Your task to perform on an android device: set the timer Image 0: 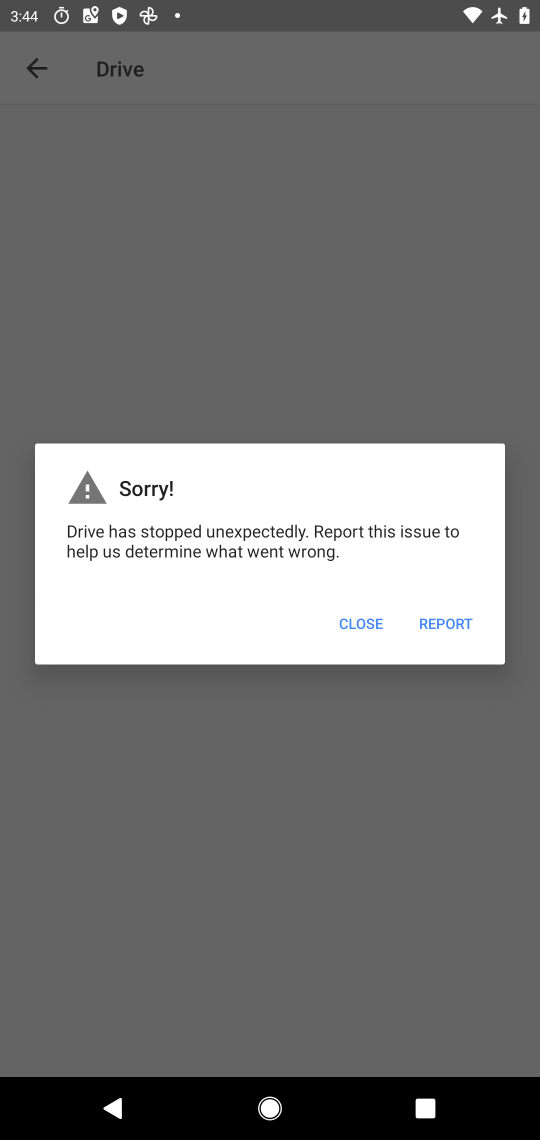
Step 0: press home button
Your task to perform on an android device: set the timer Image 1: 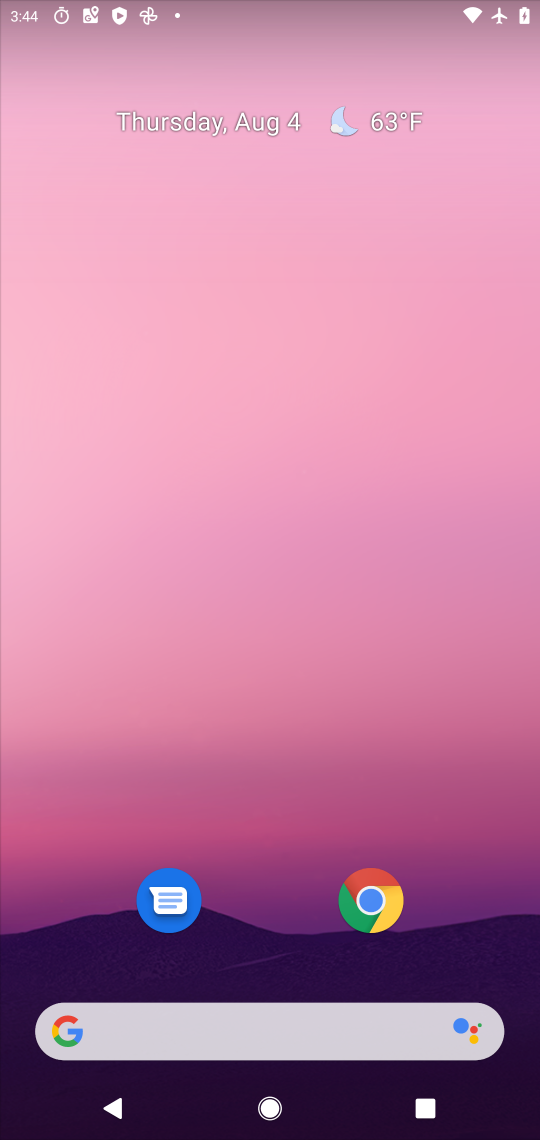
Step 1: drag from (465, 964) to (275, 70)
Your task to perform on an android device: set the timer Image 2: 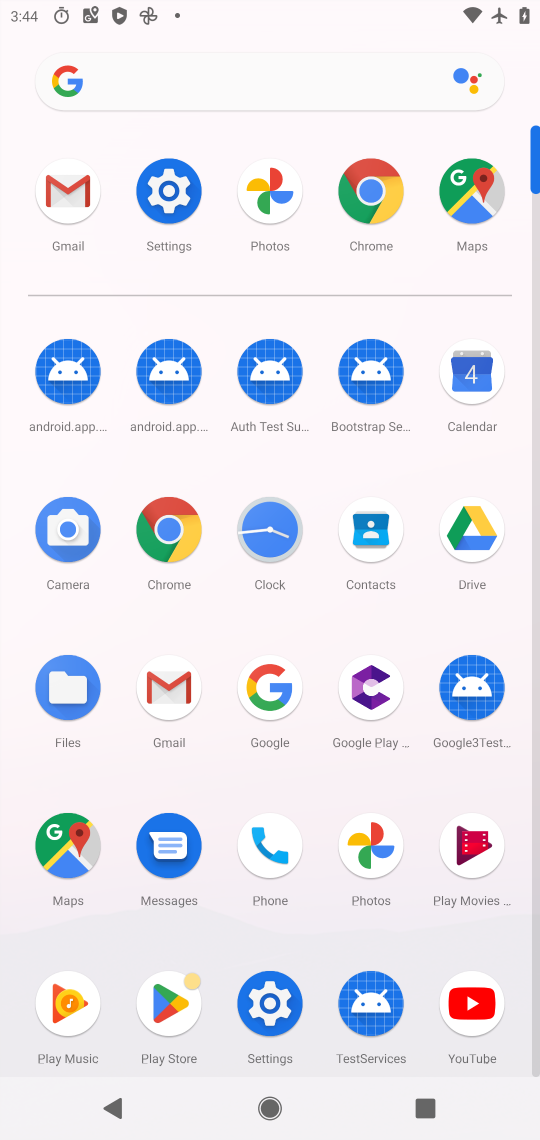
Step 2: click (266, 563)
Your task to perform on an android device: set the timer Image 3: 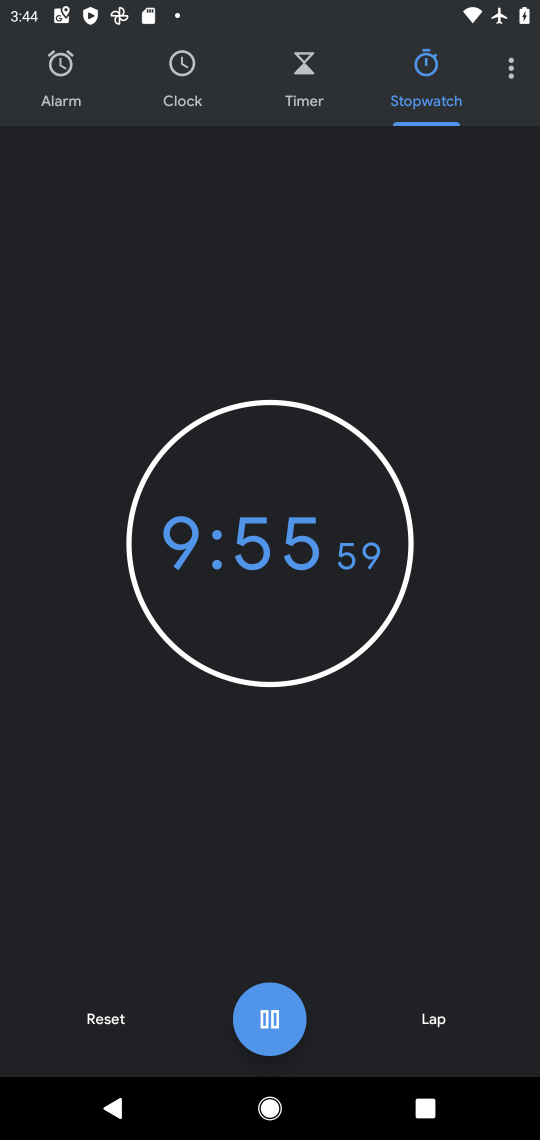
Step 3: click (312, 79)
Your task to perform on an android device: set the timer Image 4: 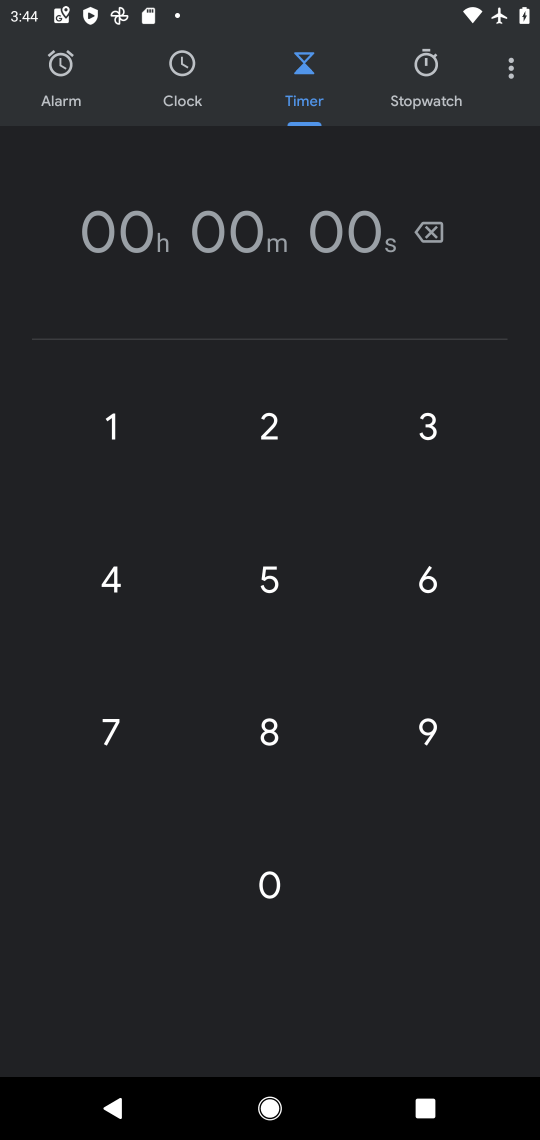
Step 4: type "90000"
Your task to perform on an android device: set the timer Image 5: 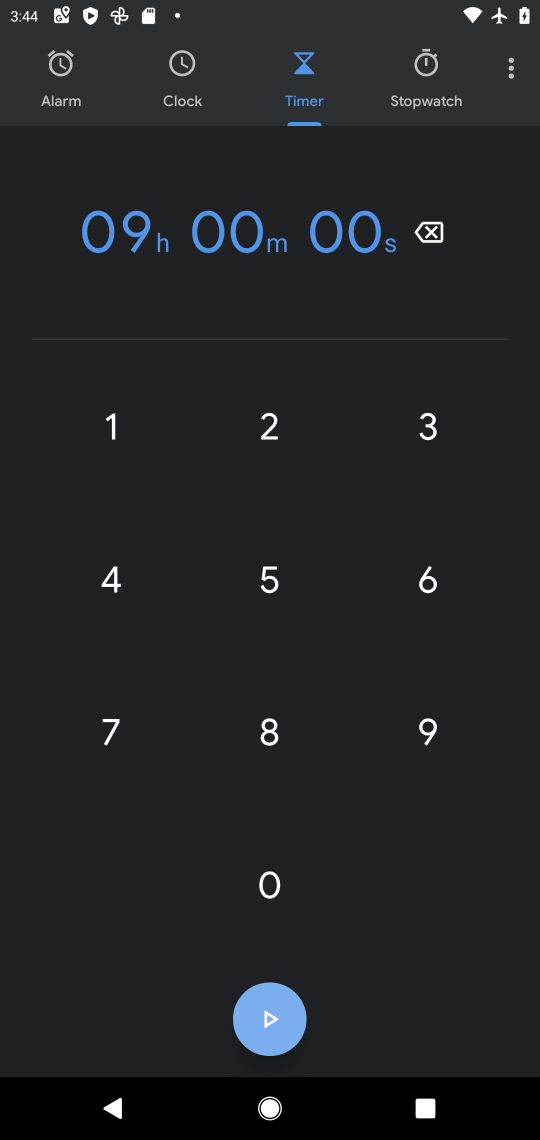
Step 5: click (265, 1044)
Your task to perform on an android device: set the timer Image 6: 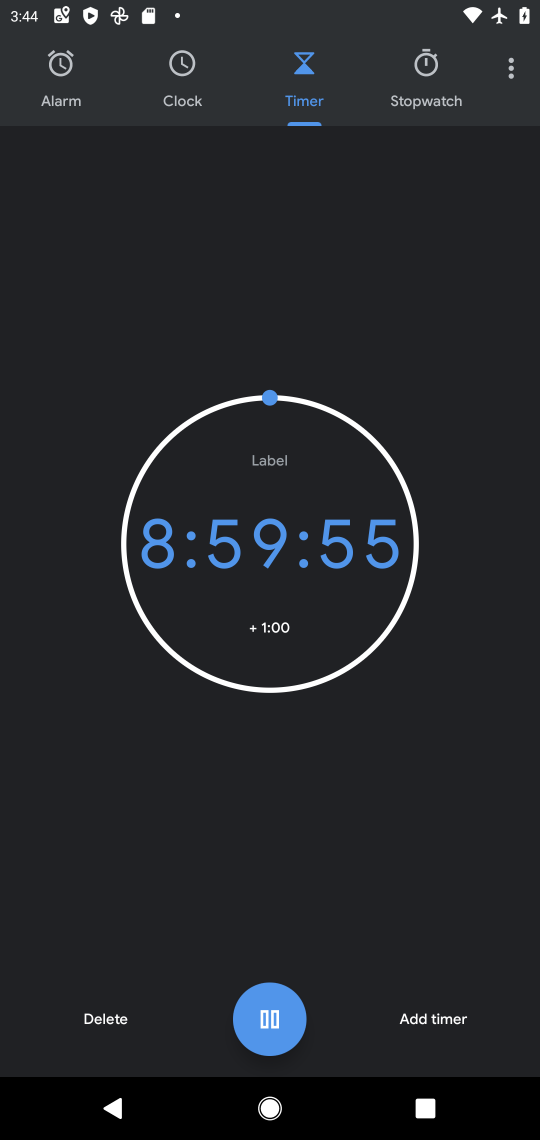
Step 6: task complete